Your task to perform on an android device: What's the weather? Image 0: 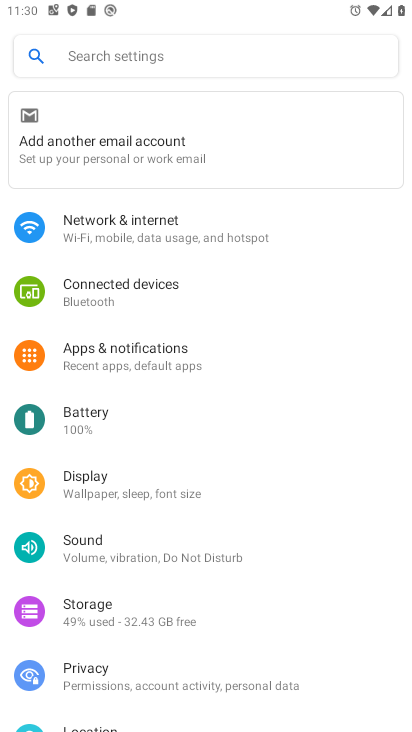
Step 0: press home button
Your task to perform on an android device: What's the weather? Image 1: 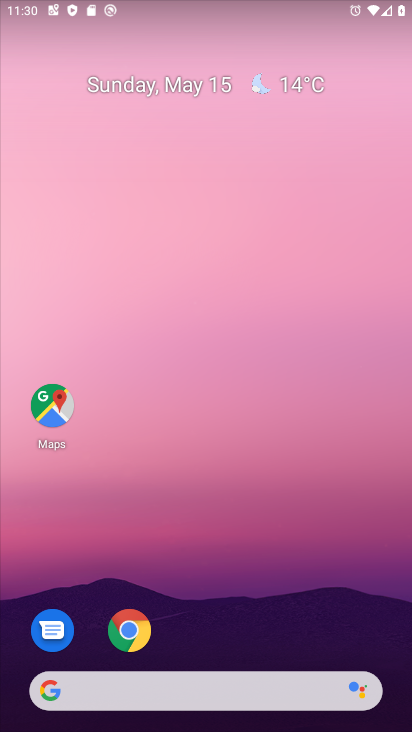
Step 1: click (255, 88)
Your task to perform on an android device: What's the weather? Image 2: 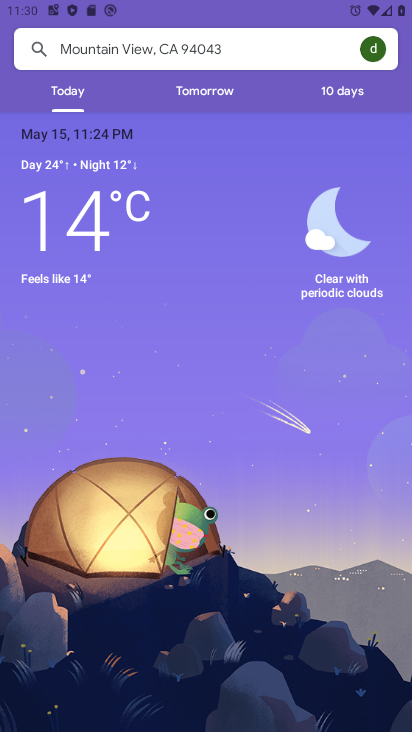
Step 2: task complete